Your task to perform on an android device: visit the assistant section in the google photos Image 0: 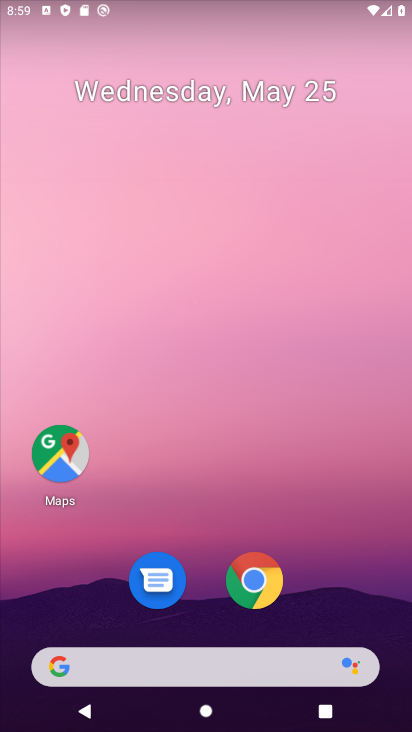
Step 0: press home button
Your task to perform on an android device: visit the assistant section in the google photos Image 1: 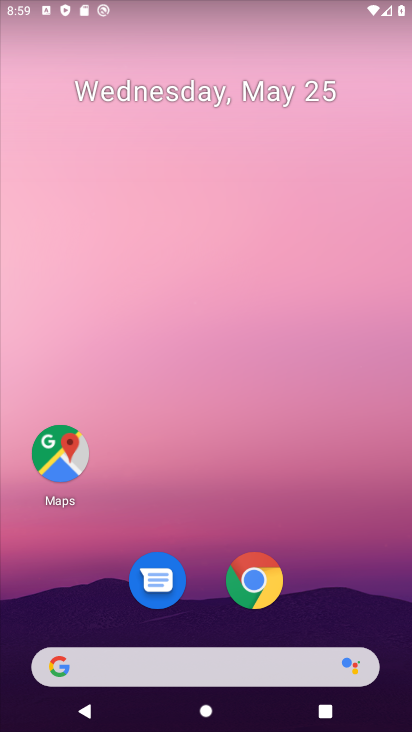
Step 1: drag from (36, 580) to (249, 135)
Your task to perform on an android device: visit the assistant section in the google photos Image 2: 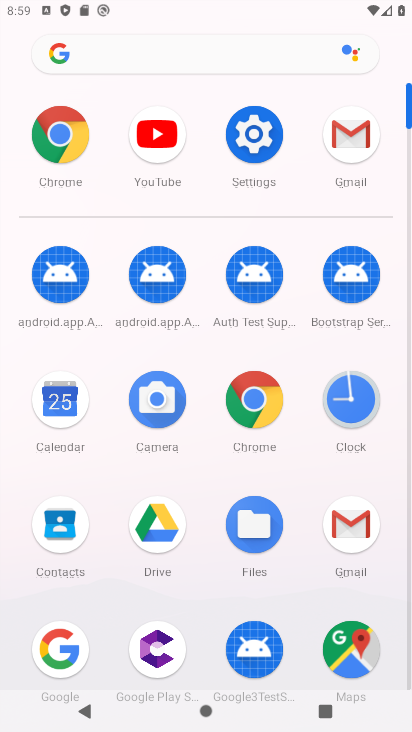
Step 2: drag from (5, 590) to (304, 59)
Your task to perform on an android device: visit the assistant section in the google photos Image 3: 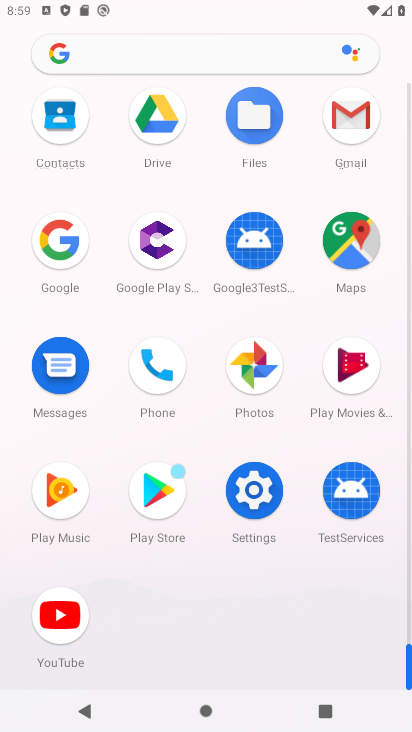
Step 3: click (240, 357)
Your task to perform on an android device: visit the assistant section in the google photos Image 4: 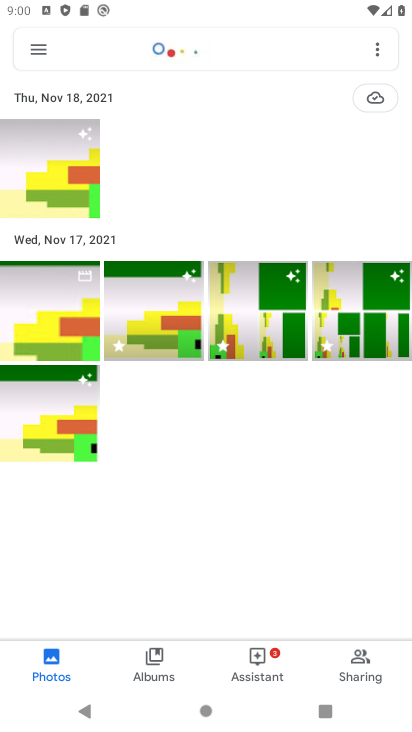
Step 4: click (245, 658)
Your task to perform on an android device: visit the assistant section in the google photos Image 5: 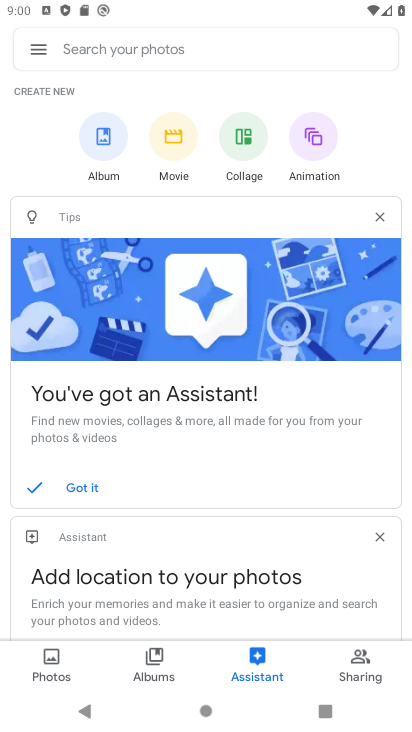
Step 5: task complete